Your task to perform on an android device: turn on javascript in the chrome app Image 0: 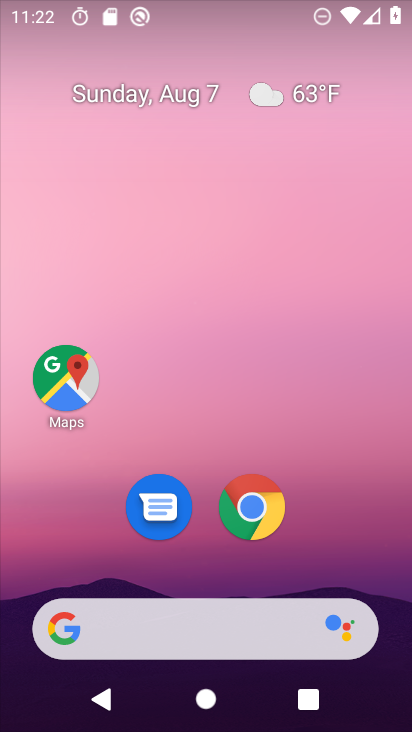
Step 0: drag from (361, 515) to (273, 0)
Your task to perform on an android device: turn on javascript in the chrome app Image 1: 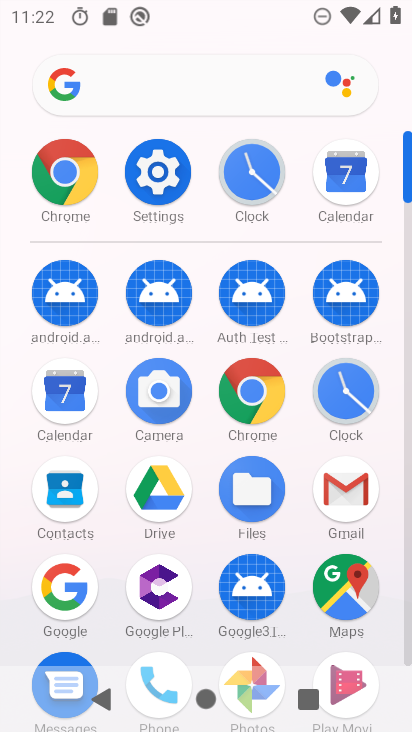
Step 1: click (247, 393)
Your task to perform on an android device: turn on javascript in the chrome app Image 2: 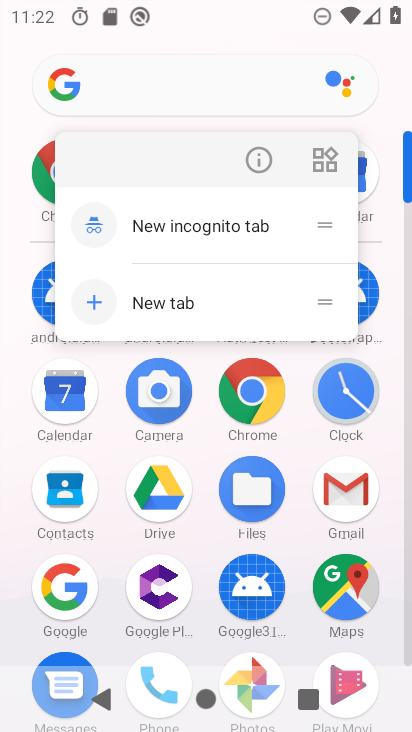
Step 2: click (259, 388)
Your task to perform on an android device: turn on javascript in the chrome app Image 3: 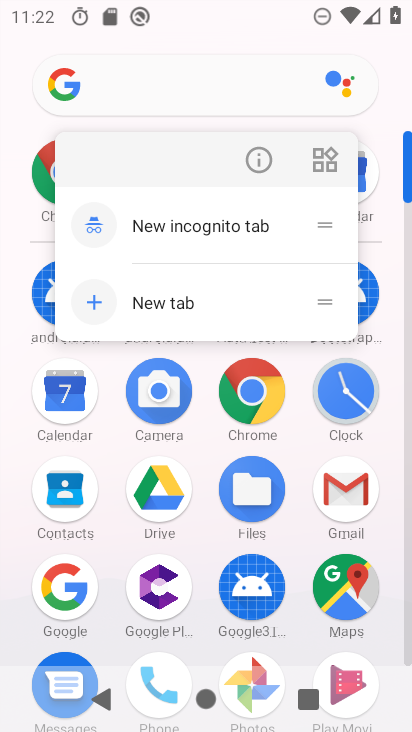
Step 3: click (259, 388)
Your task to perform on an android device: turn on javascript in the chrome app Image 4: 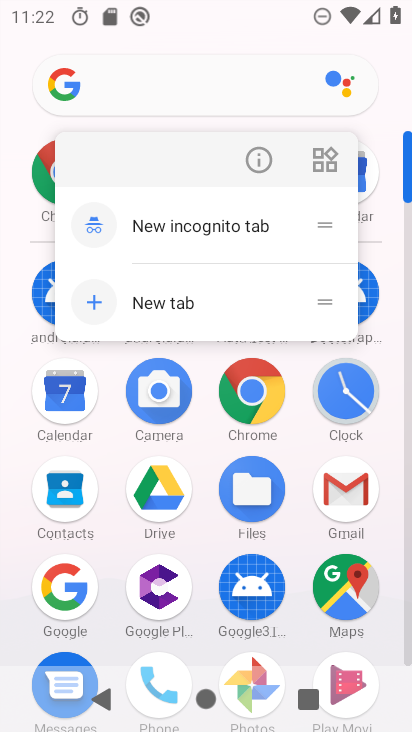
Step 4: click (245, 399)
Your task to perform on an android device: turn on javascript in the chrome app Image 5: 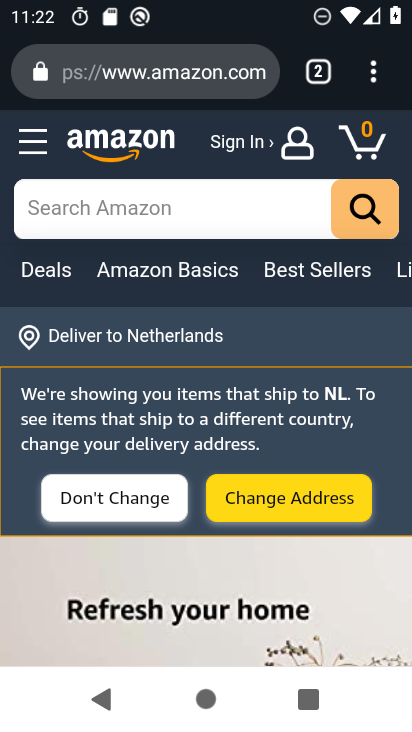
Step 5: drag from (367, 65) to (126, 493)
Your task to perform on an android device: turn on javascript in the chrome app Image 6: 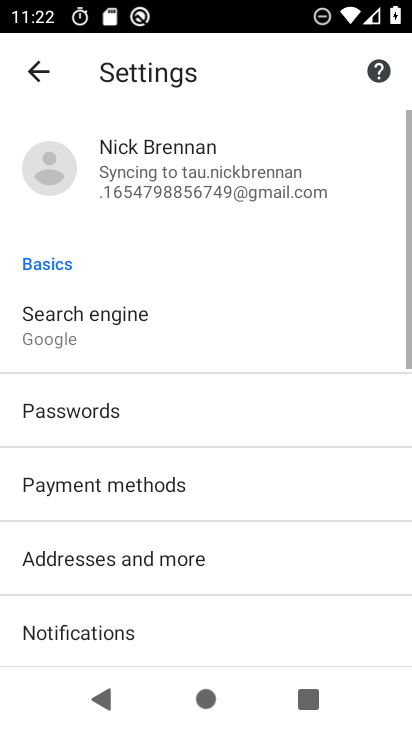
Step 6: drag from (275, 518) to (294, 1)
Your task to perform on an android device: turn on javascript in the chrome app Image 7: 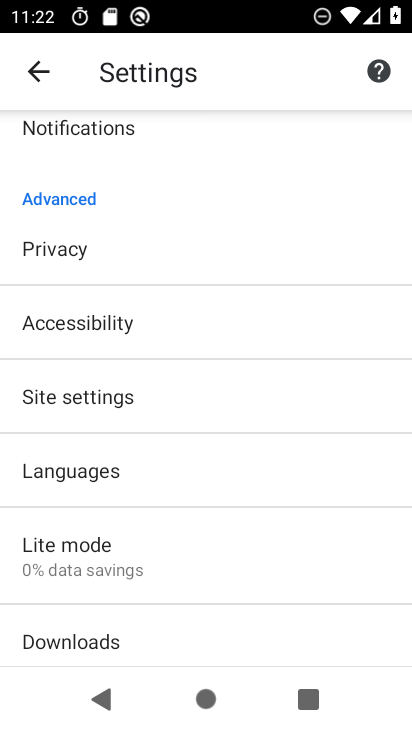
Step 7: drag from (185, 509) to (255, 123)
Your task to perform on an android device: turn on javascript in the chrome app Image 8: 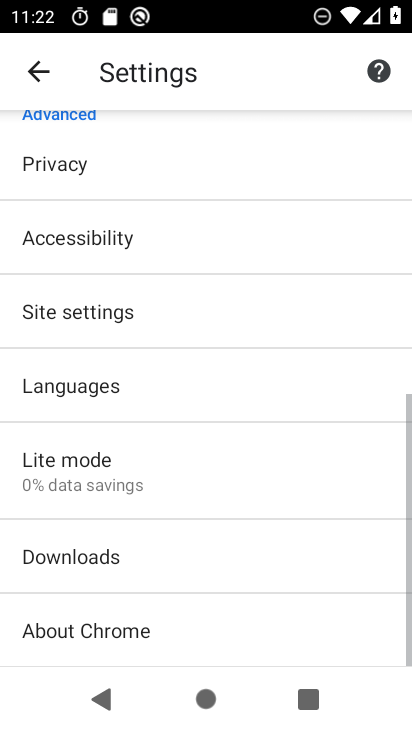
Step 8: drag from (149, 197) to (180, 514)
Your task to perform on an android device: turn on javascript in the chrome app Image 9: 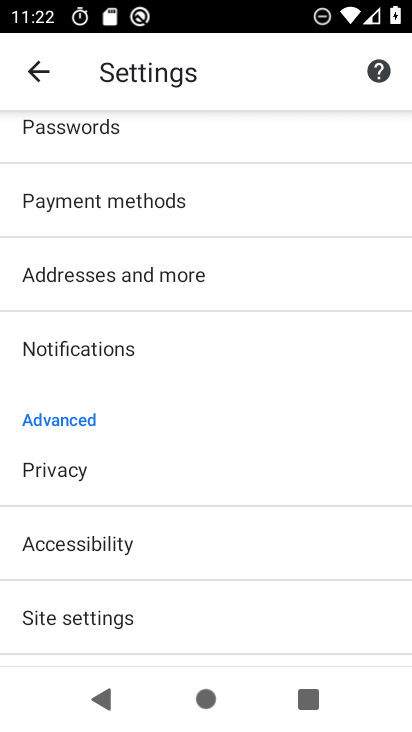
Step 9: click (55, 619)
Your task to perform on an android device: turn on javascript in the chrome app Image 10: 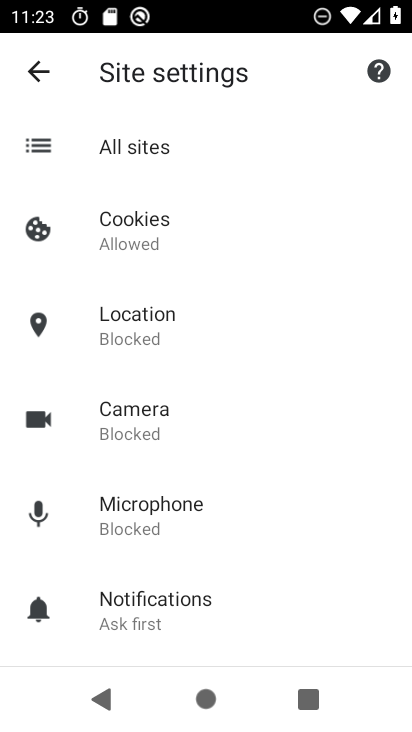
Step 10: drag from (300, 461) to (307, 128)
Your task to perform on an android device: turn on javascript in the chrome app Image 11: 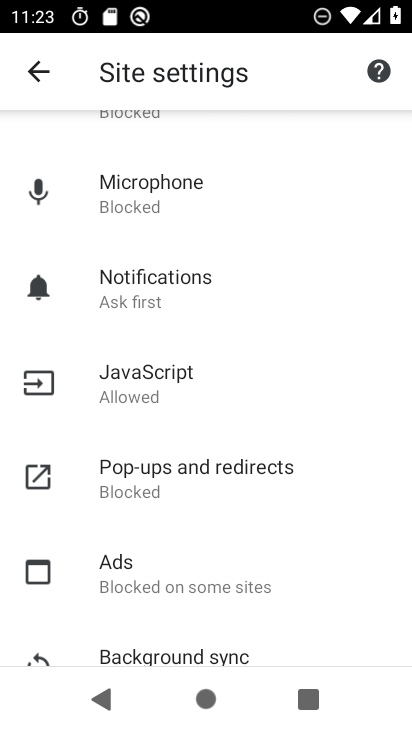
Step 11: click (186, 371)
Your task to perform on an android device: turn on javascript in the chrome app Image 12: 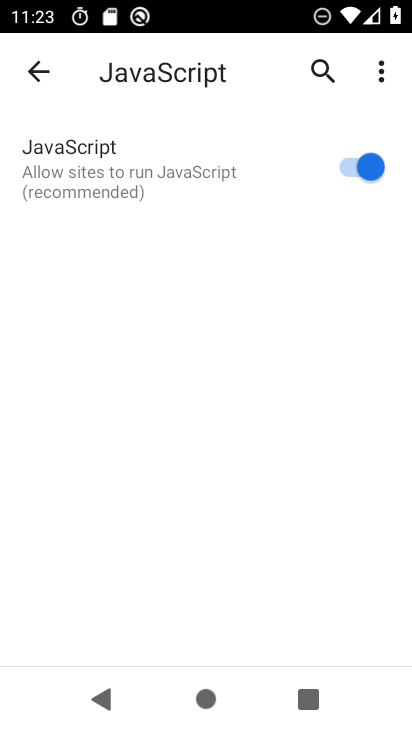
Step 12: task complete